Your task to perform on an android device: What is the news today? Image 0: 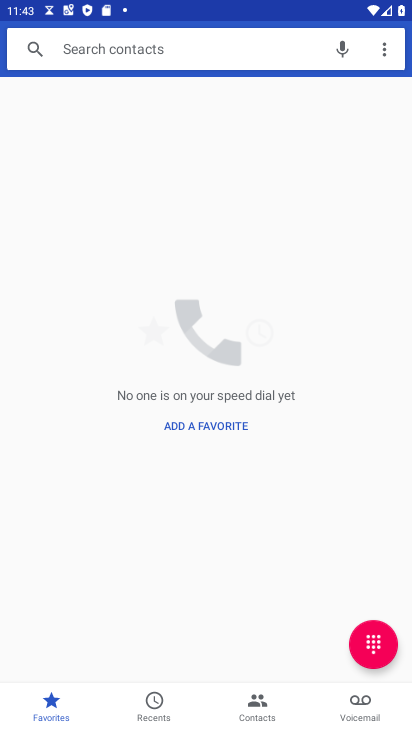
Step 0: press home button
Your task to perform on an android device: What is the news today? Image 1: 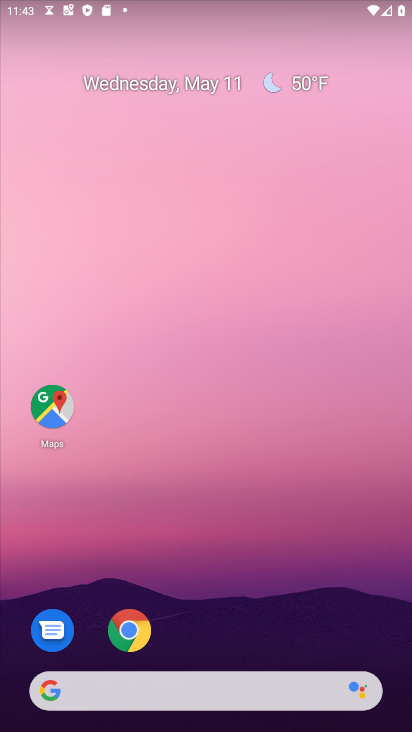
Step 1: task complete